Your task to perform on an android device: Search for razer blackwidow on bestbuy.com, select the first entry, and add it to the cart. Image 0: 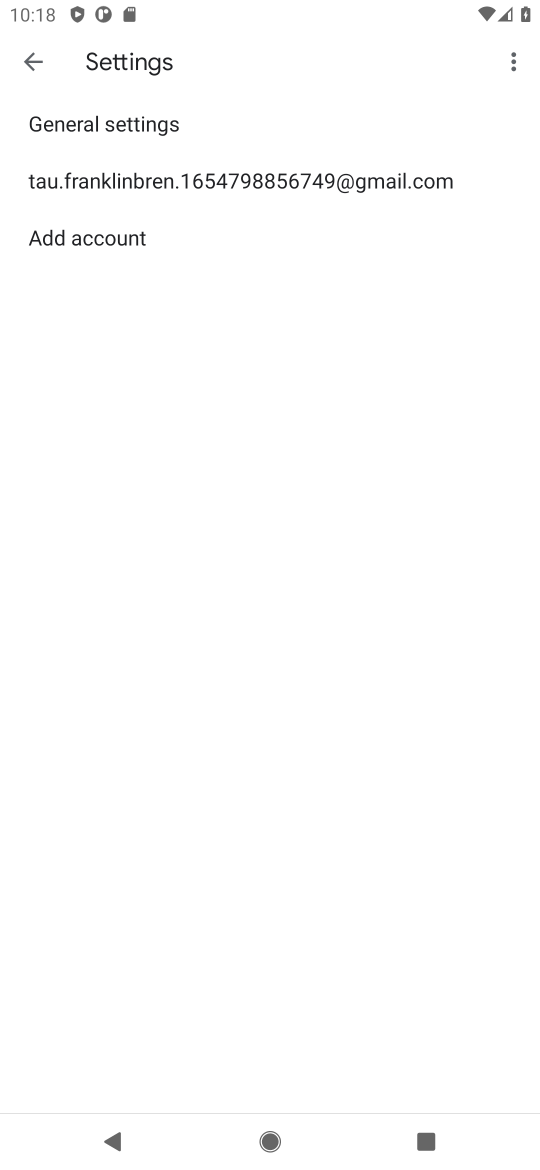
Step 0: press home button
Your task to perform on an android device: Search for razer blackwidow on bestbuy.com, select the first entry, and add it to the cart. Image 1: 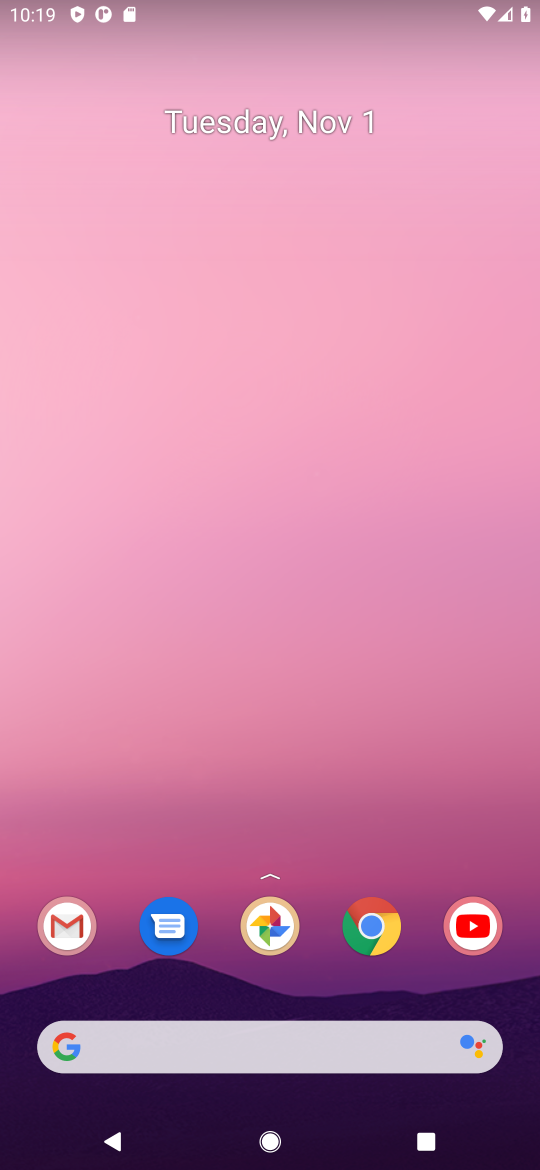
Step 1: click (394, 929)
Your task to perform on an android device: Search for razer blackwidow on bestbuy.com, select the first entry, and add it to the cart. Image 2: 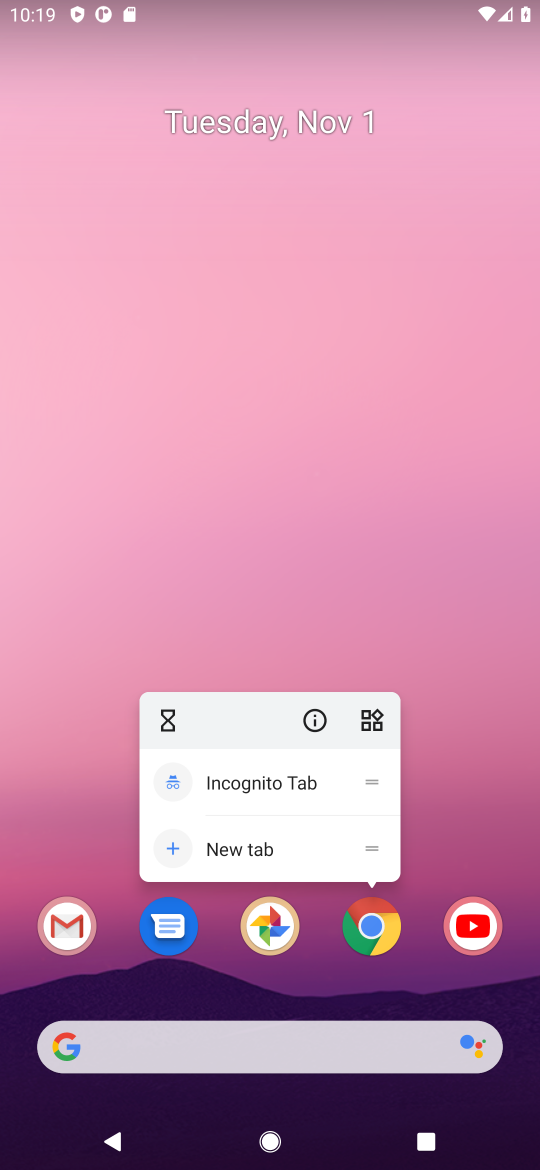
Step 2: click (395, 926)
Your task to perform on an android device: Search for razer blackwidow on bestbuy.com, select the first entry, and add it to the cart. Image 3: 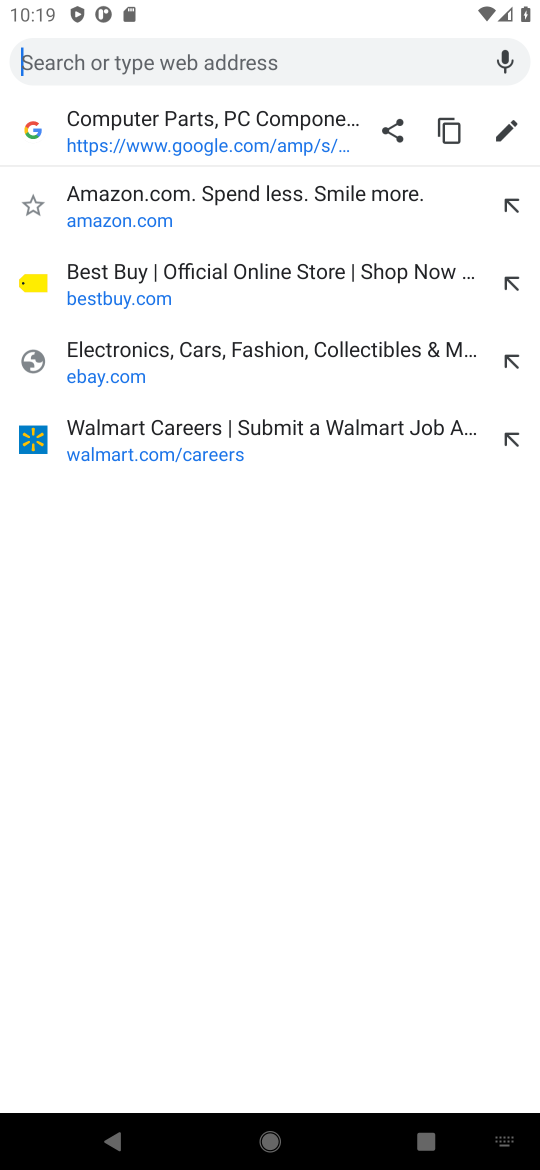
Step 3: click (149, 282)
Your task to perform on an android device: Search for razer blackwidow on bestbuy.com, select the first entry, and add it to the cart. Image 4: 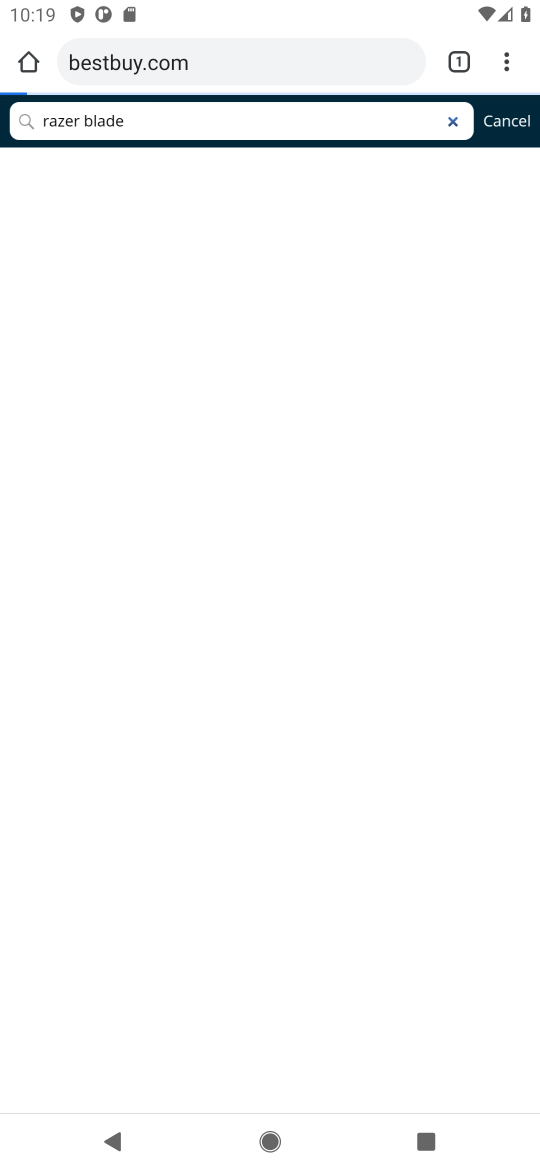
Step 4: click (149, 118)
Your task to perform on an android device: Search for razer blackwidow on bestbuy.com, select the first entry, and add it to the cart. Image 5: 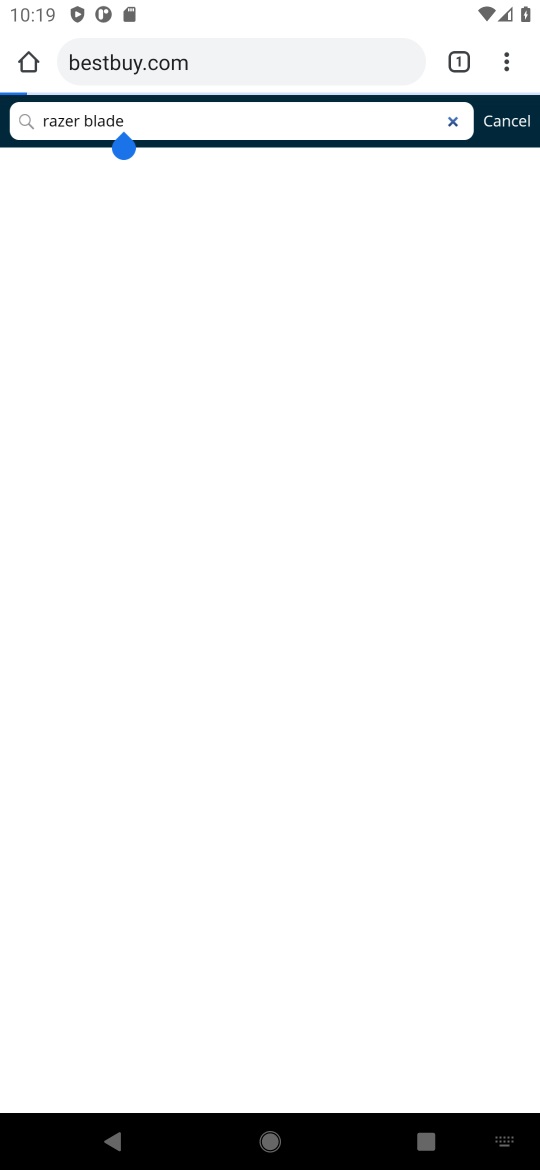
Step 5: click (457, 121)
Your task to perform on an android device: Search for razer blackwidow on bestbuy.com, select the first entry, and add it to the cart. Image 6: 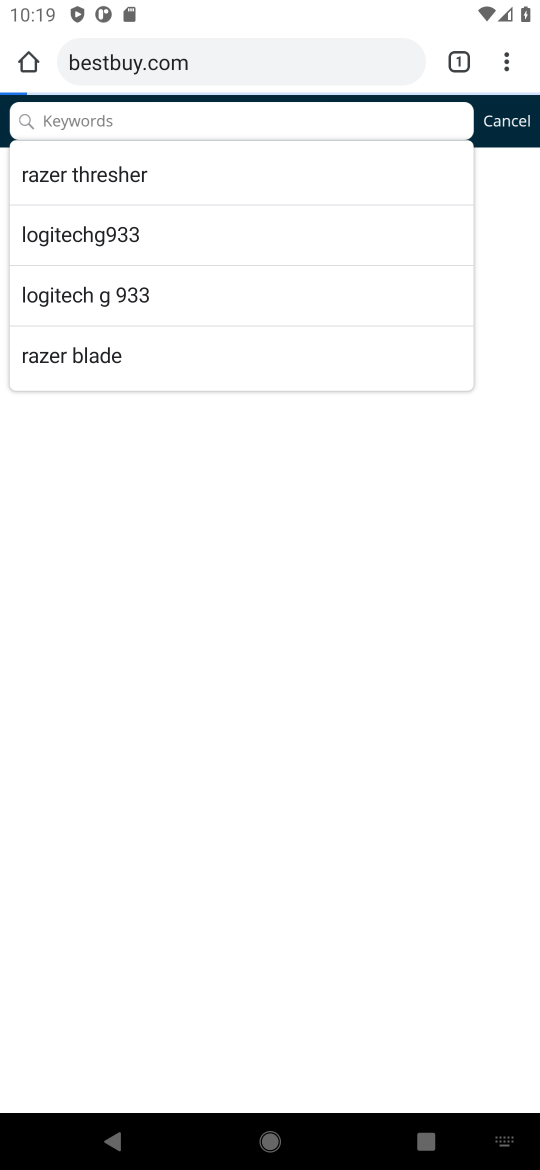
Step 6: type "razer blaclwindow"
Your task to perform on an android device: Search for razer blackwidow on bestbuy.com, select the first entry, and add it to the cart. Image 7: 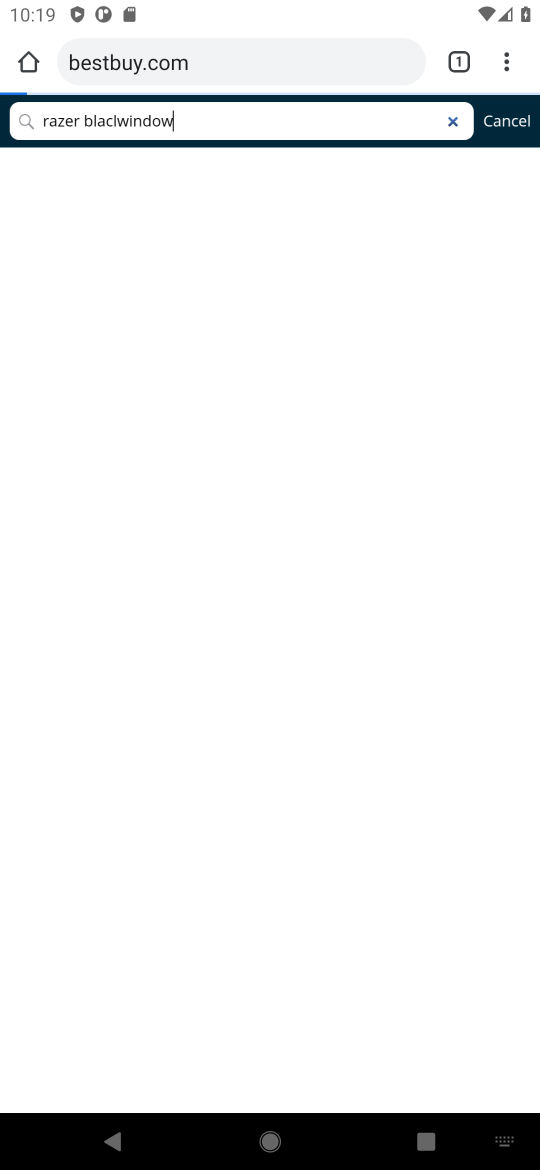
Step 7: type ""
Your task to perform on an android device: Search for razer blackwidow on bestbuy.com, select the first entry, and add it to the cart. Image 8: 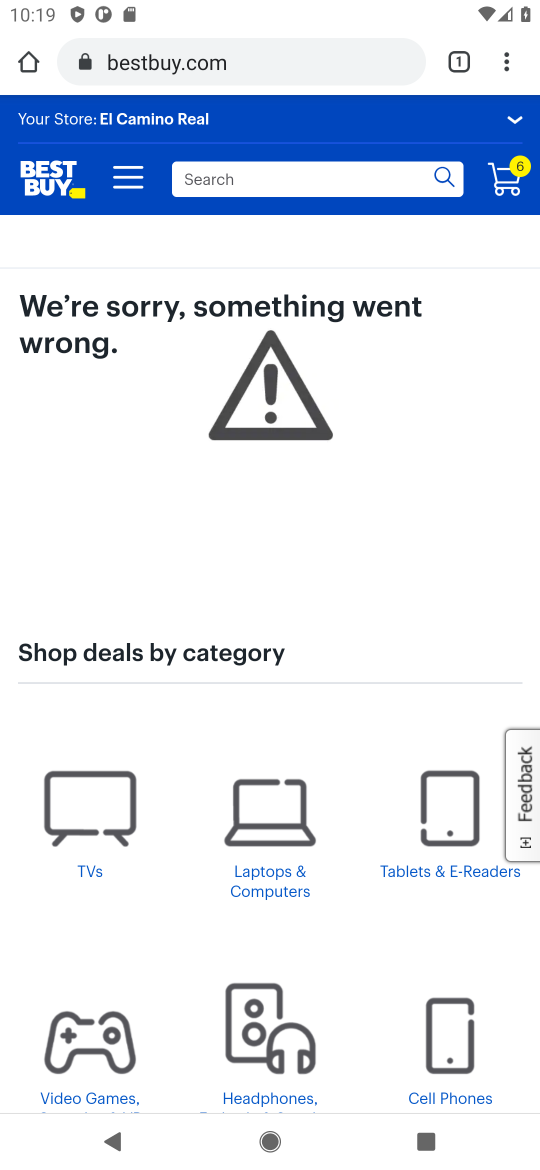
Step 8: click (344, 180)
Your task to perform on an android device: Search for razer blackwidow on bestbuy.com, select the first entry, and add it to the cart. Image 9: 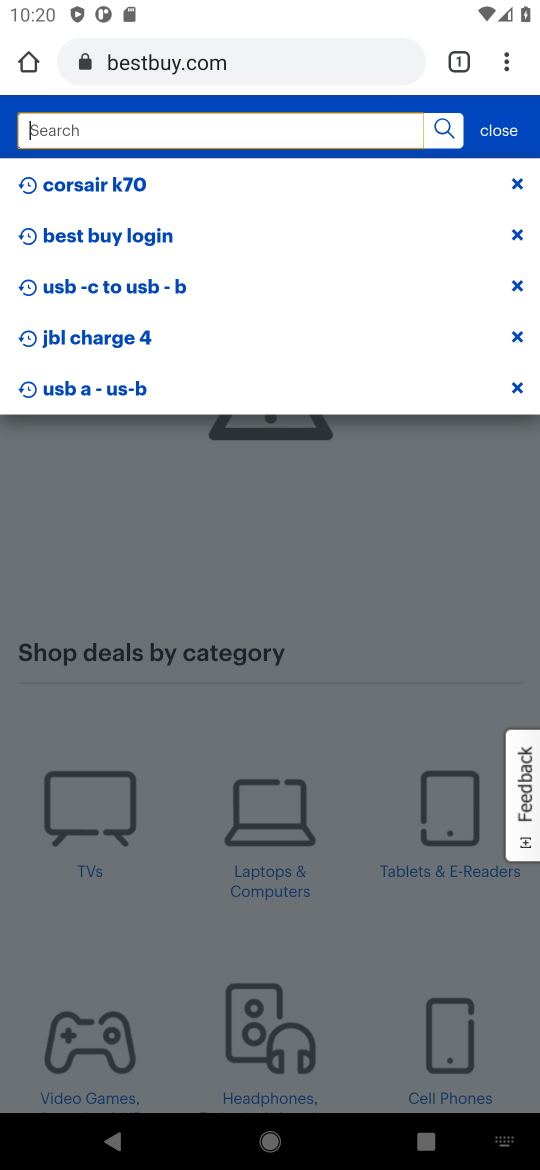
Step 9: type "razer blackwidow"
Your task to perform on an android device: Search for razer blackwidow on bestbuy.com, select the first entry, and add it to the cart. Image 10: 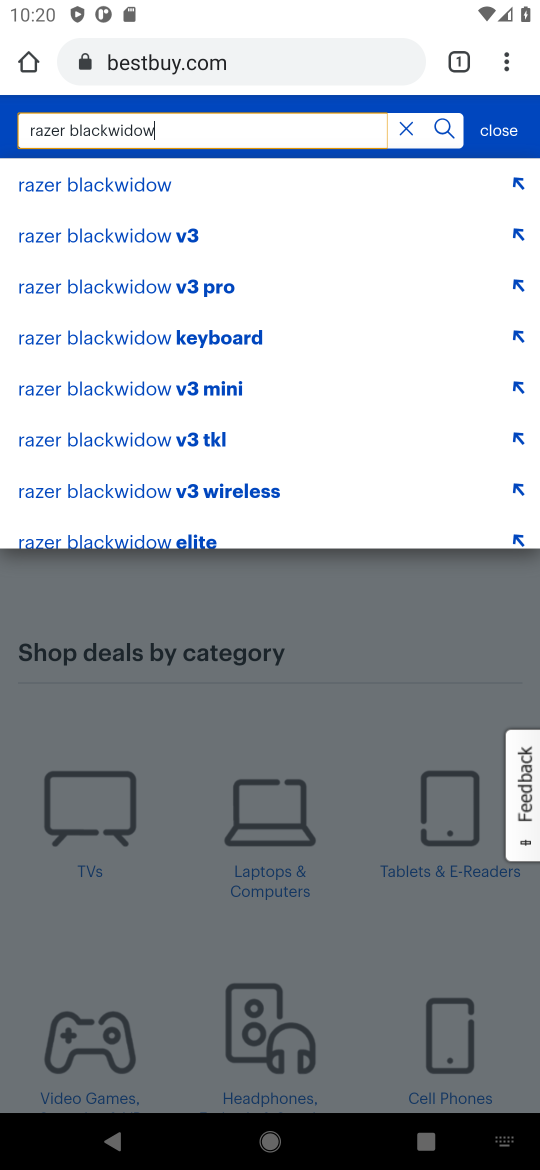
Step 10: click (111, 186)
Your task to perform on an android device: Search for razer blackwidow on bestbuy.com, select the first entry, and add it to the cart. Image 11: 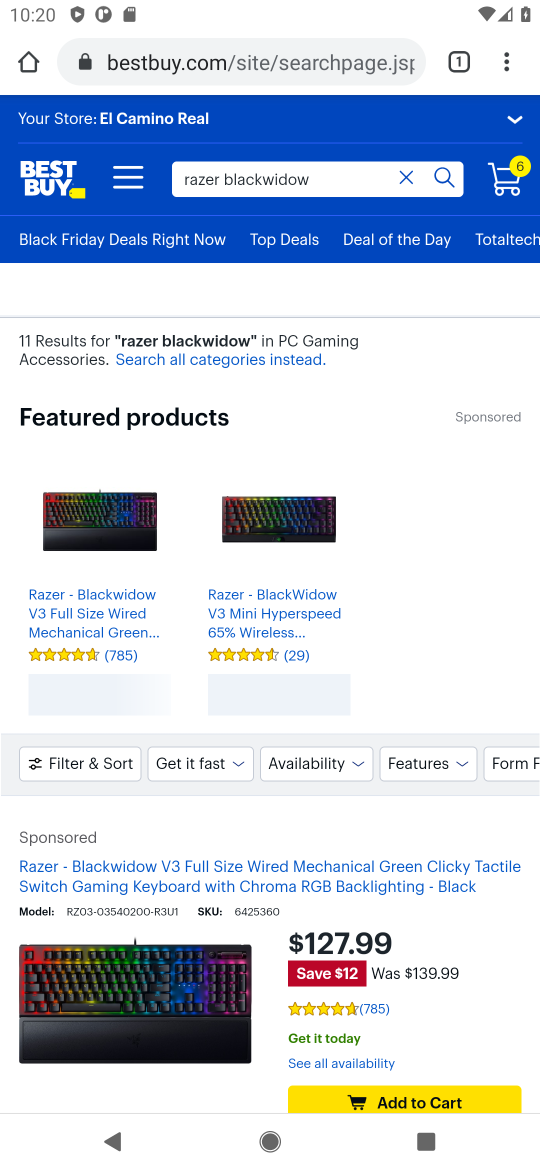
Step 11: drag from (149, 930) to (311, 281)
Your task to perform on an android device: Search for razer blackwidow on bestbuy.com, select the first entry, and add it to the cart. Image 12: 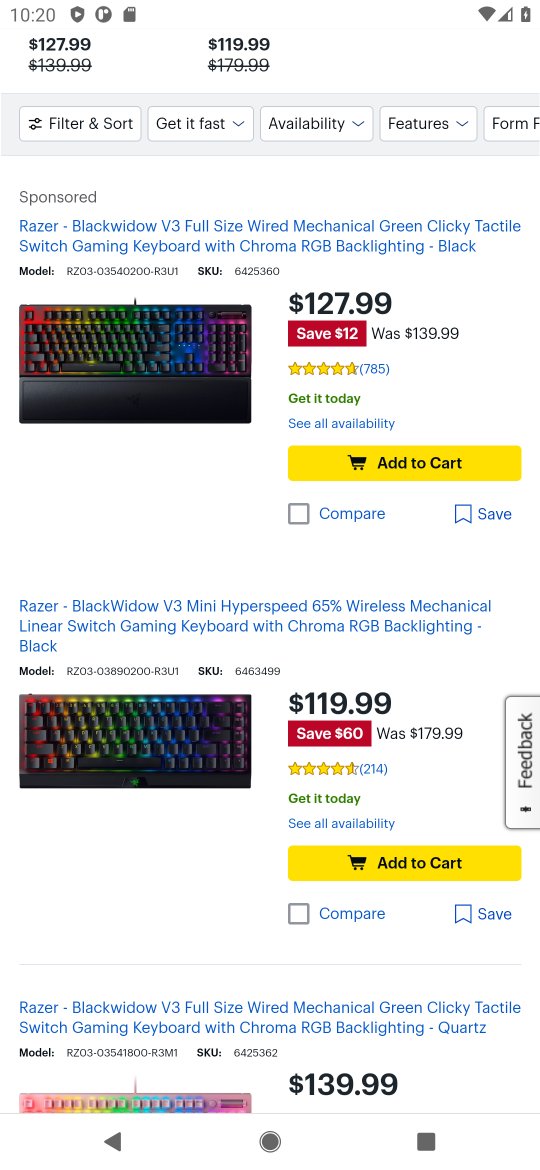
Step 12: click (186, 619)
Your task to perform on an android device: Search for razer blackwidow on bestbuy.com, select the first entry, and add it to the cart. Image 13: 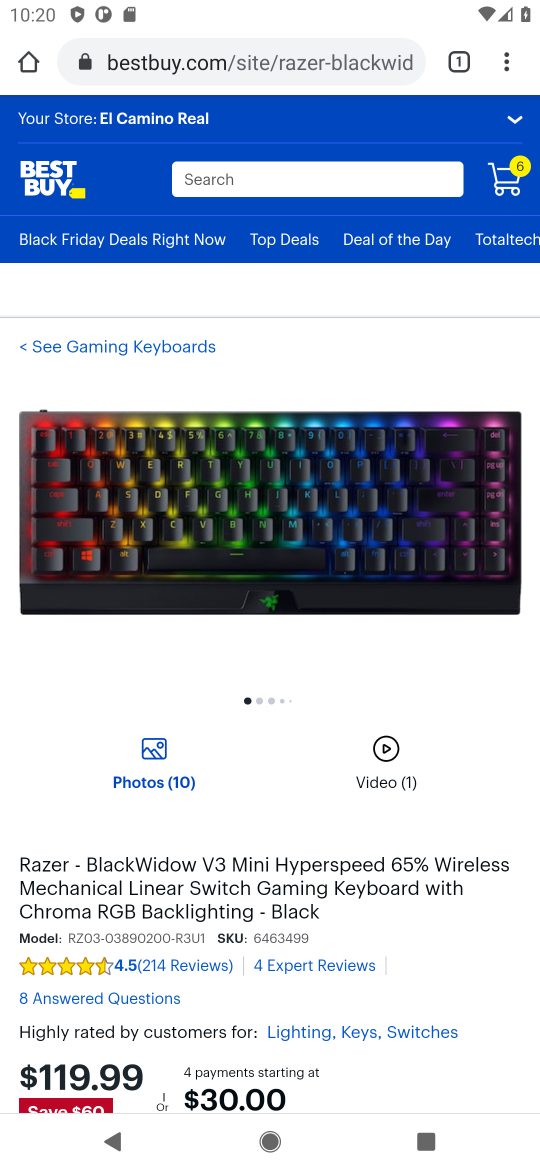
Step 13: drag from (250, 842) to (291, 417)
Your task to perform on an android device: Search for razer blackwidow on bestbuy.com, select the first entry, and add it to the cart. Image 14: 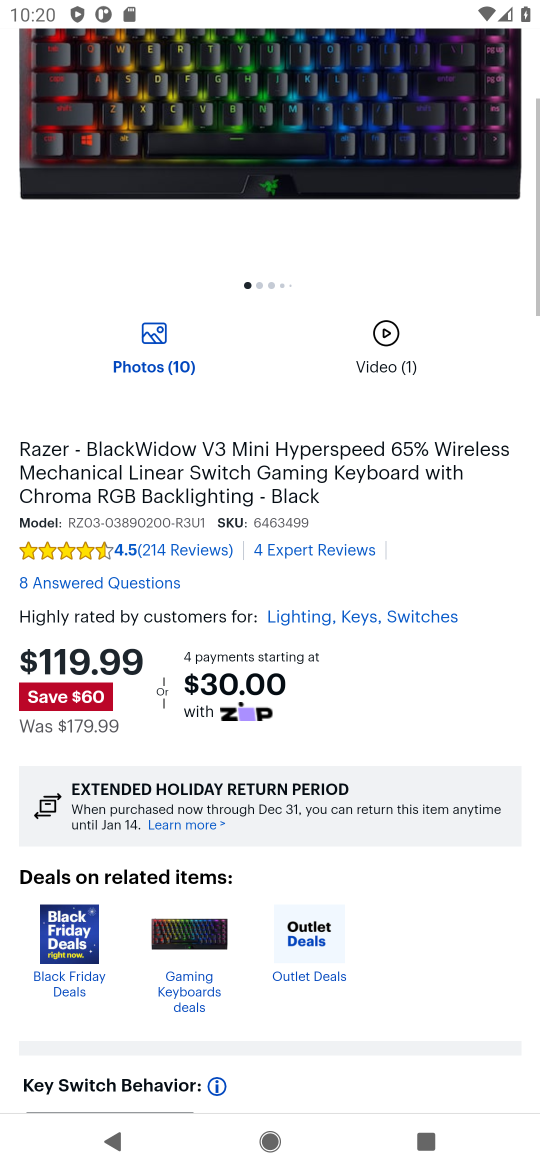
Step 14: drag from (131, 871) to (233, 404)
Your task to perform on an android device: Search for razer blackwidow on bestbuy.com, select the first entry, and add it to the cart. Image 15: 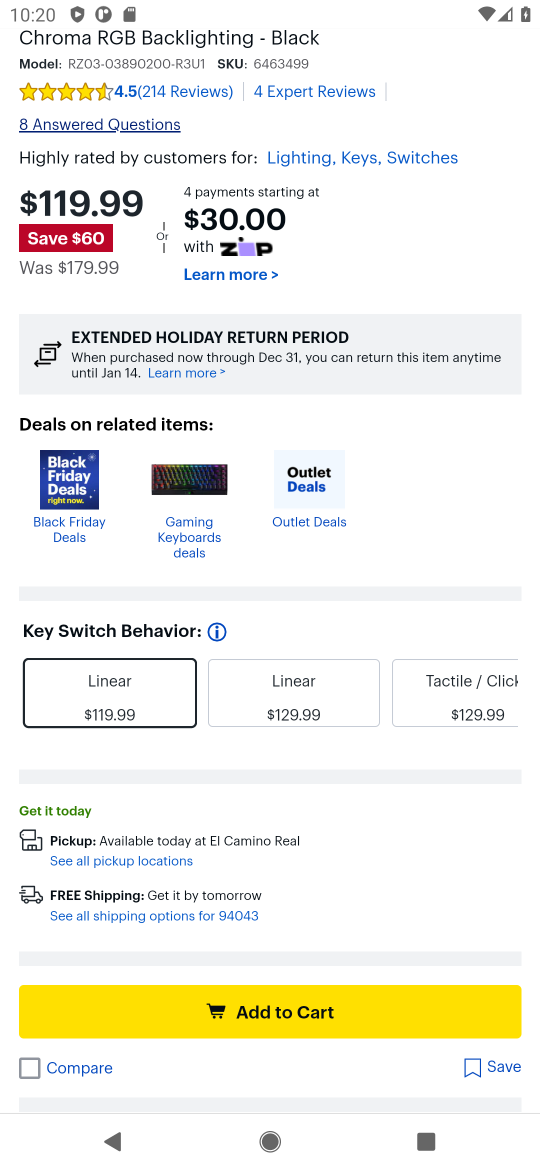
Step 15: drag from (249, 832) to (296, 624)
Your task to perform on an android device: Search for razer blackwidow on bestbuy.com, select the first entry, and add it to the cart. Image 16: 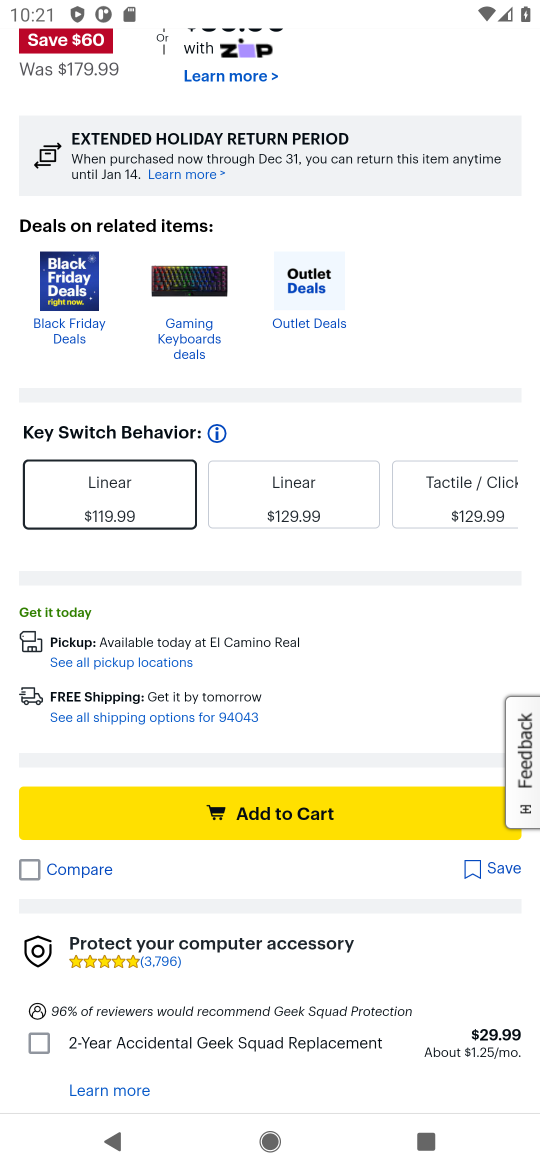
Step 16: click (347, 807)
Your task to perform on an android device: Search for razer blackwidow on bestbuy.com, select the first entry, and add it to the cart. Image 17: 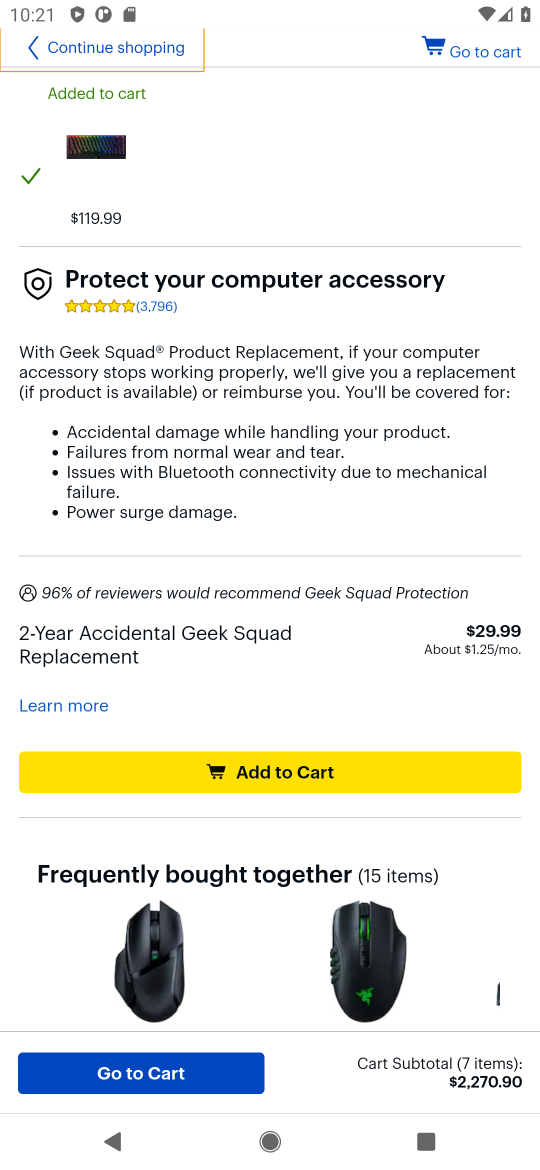
Step 17: task complete